Your task to perform on an android device: Search for jbl charge 4 on walmart, select the first entry, and add it to the cart. Image 0: 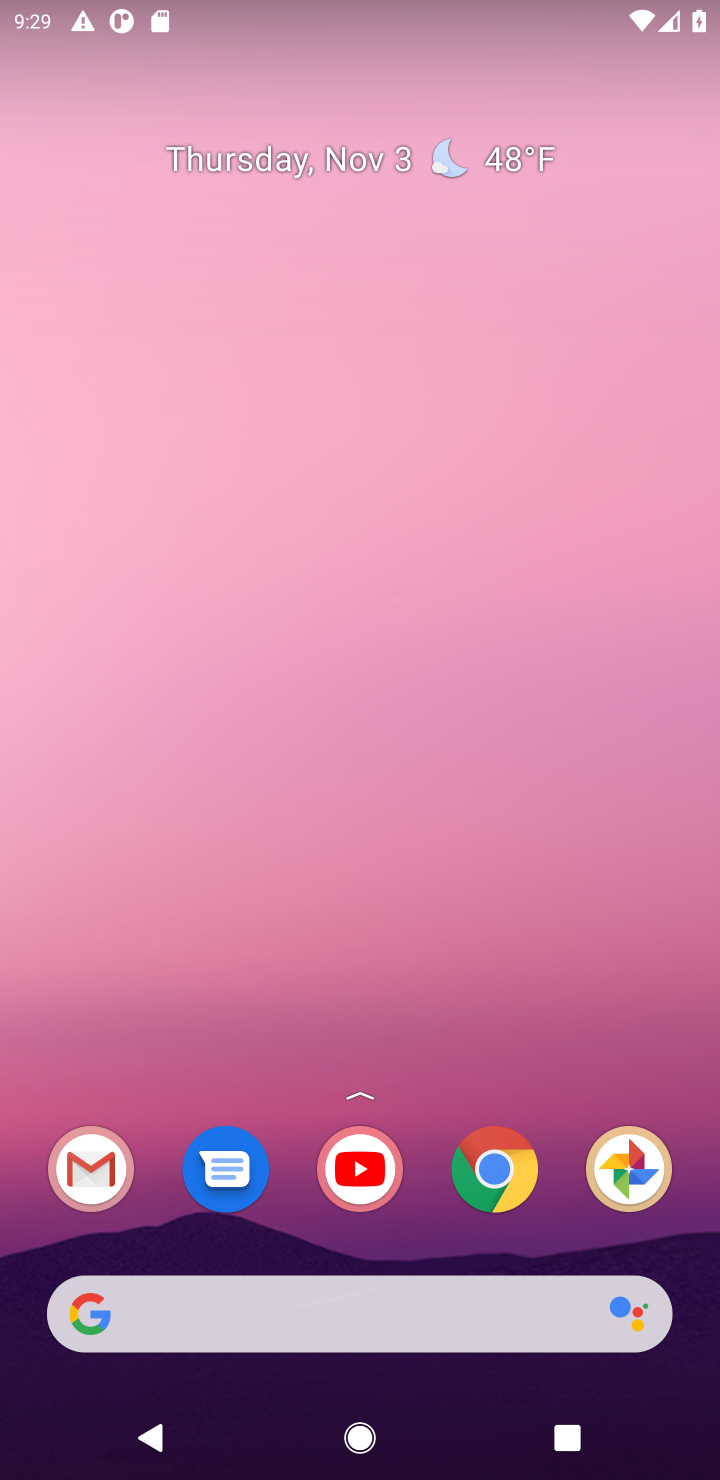
Step 0: drag from (425, 1221) to (370, 157)
Your task to perform on an android device: Search for jbl charge 4 on walmart, select the first entry, and add it to the cart. Image 1: 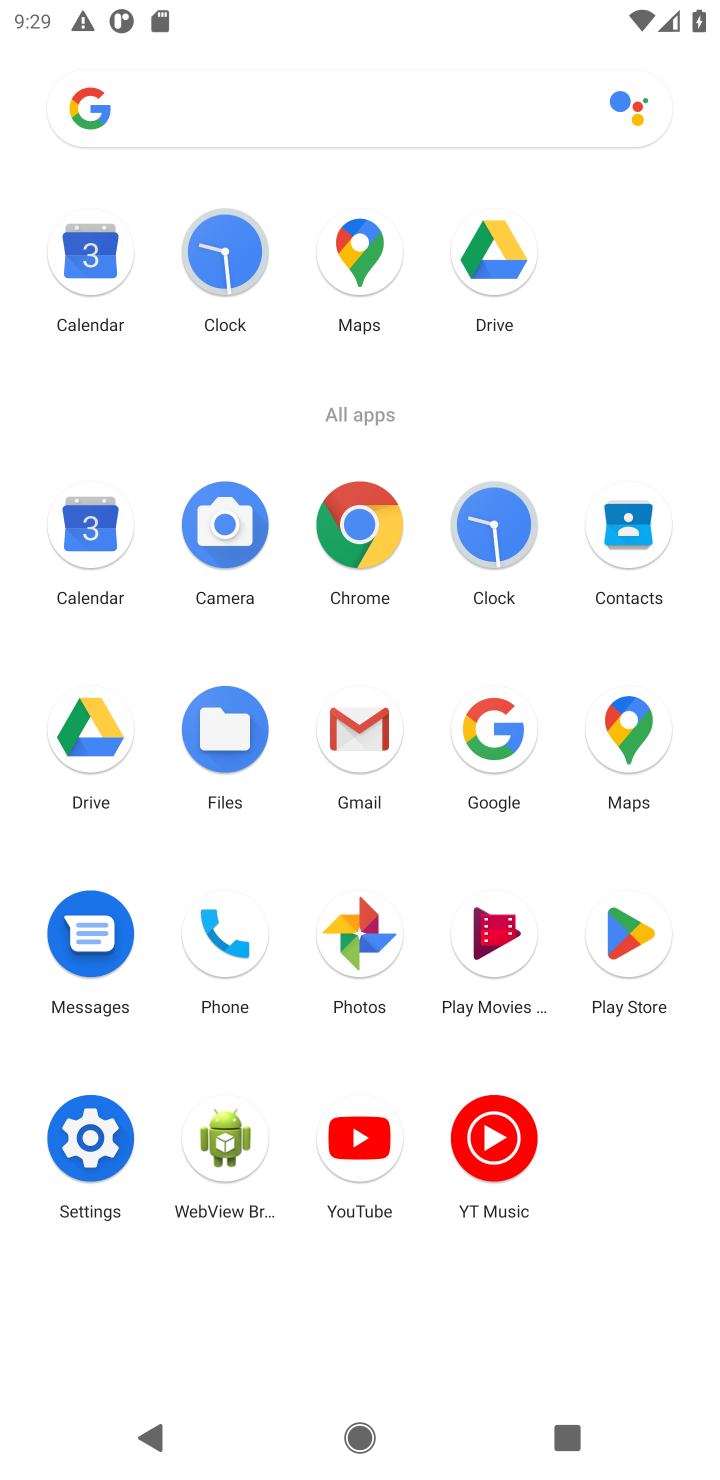
Step 1: click (362, 531)
Your task to perform on an android device: Search for jbl charge 4 on walmart, select the first entry, and add it to the cart. Image 2: 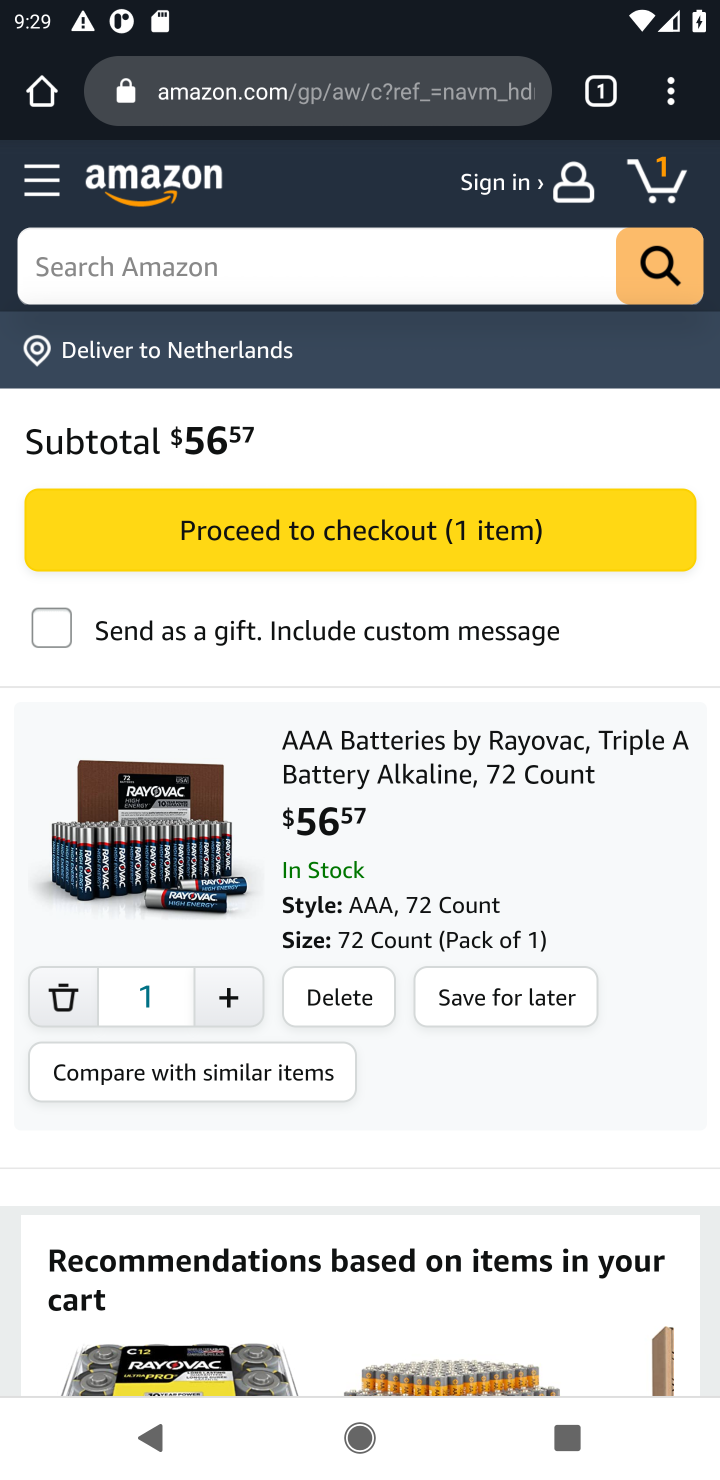
Step 2: click (429, 98)
Your task to perform on an android device: Search for jbl charge 4 on walmart, select the first entry, and add it to the cart. Image 3: 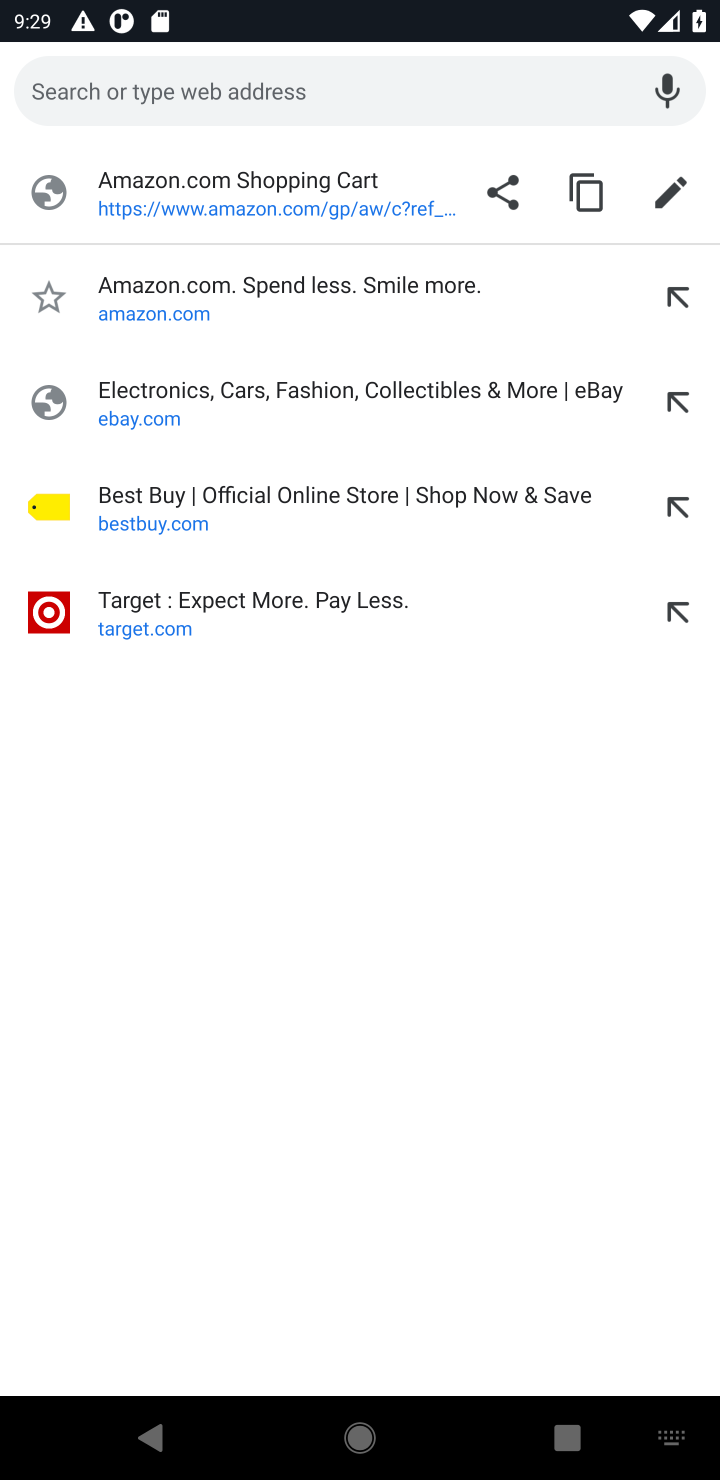
Step 3: type "walmart.com"
Your task to perform on an android device: Search for jbl charge 4 on walmart, select the first entry, and add it to the cart. Image 4: 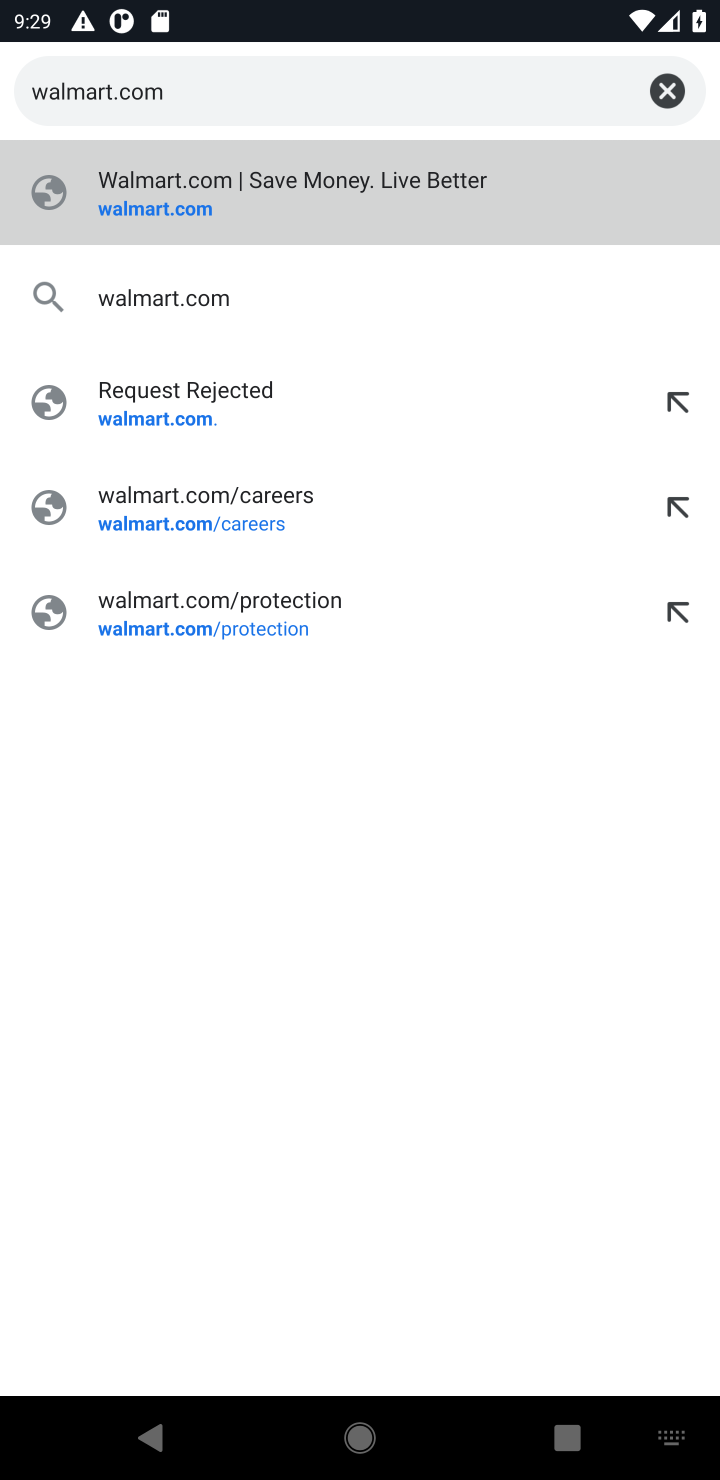
Step 4: press enter
Your task to perform on an android device: Search for jbl charge 4 on walmart, select the first entry, and add it to the cart. Image 5: 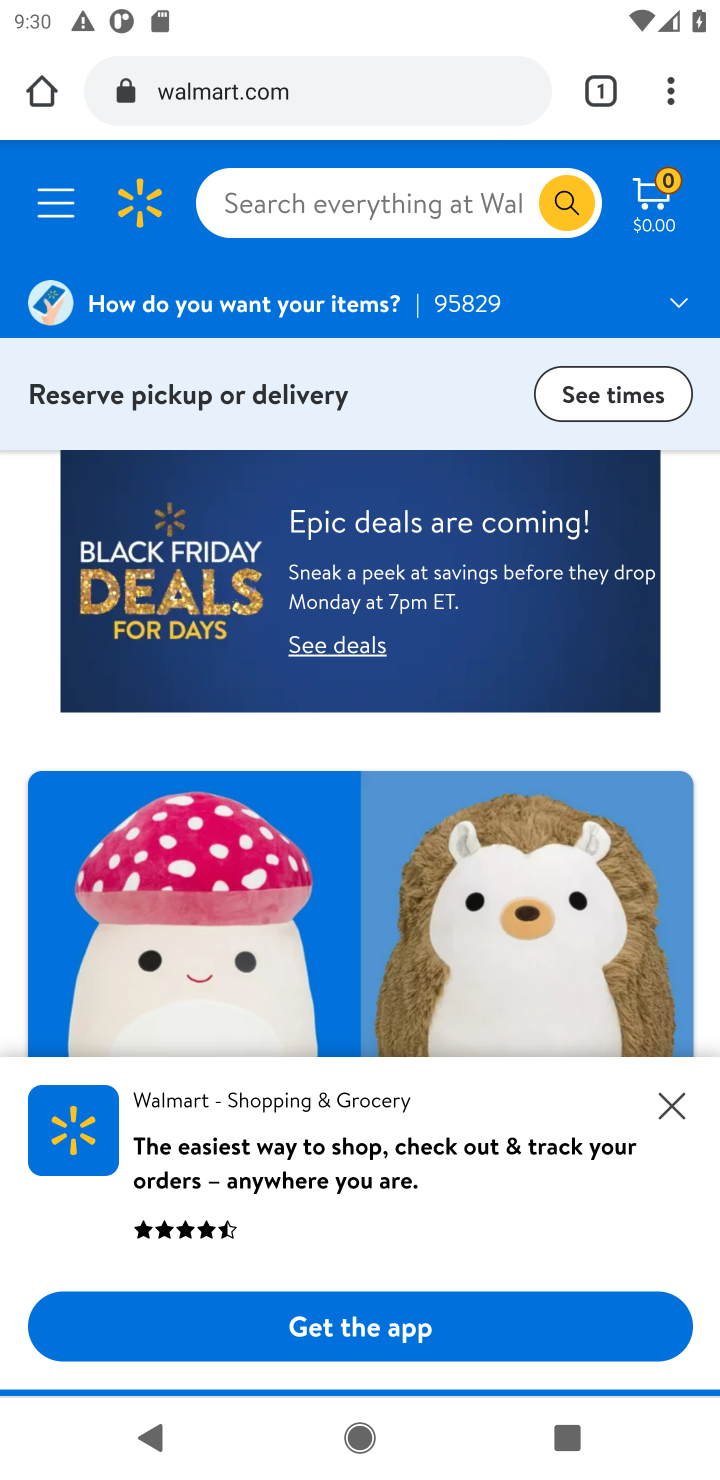
Step 5: click (445, 188)
Your task to perform on an android device: Search for jbl charge 4 on walmart, select the first entry, and add it to the cart. Image 6: 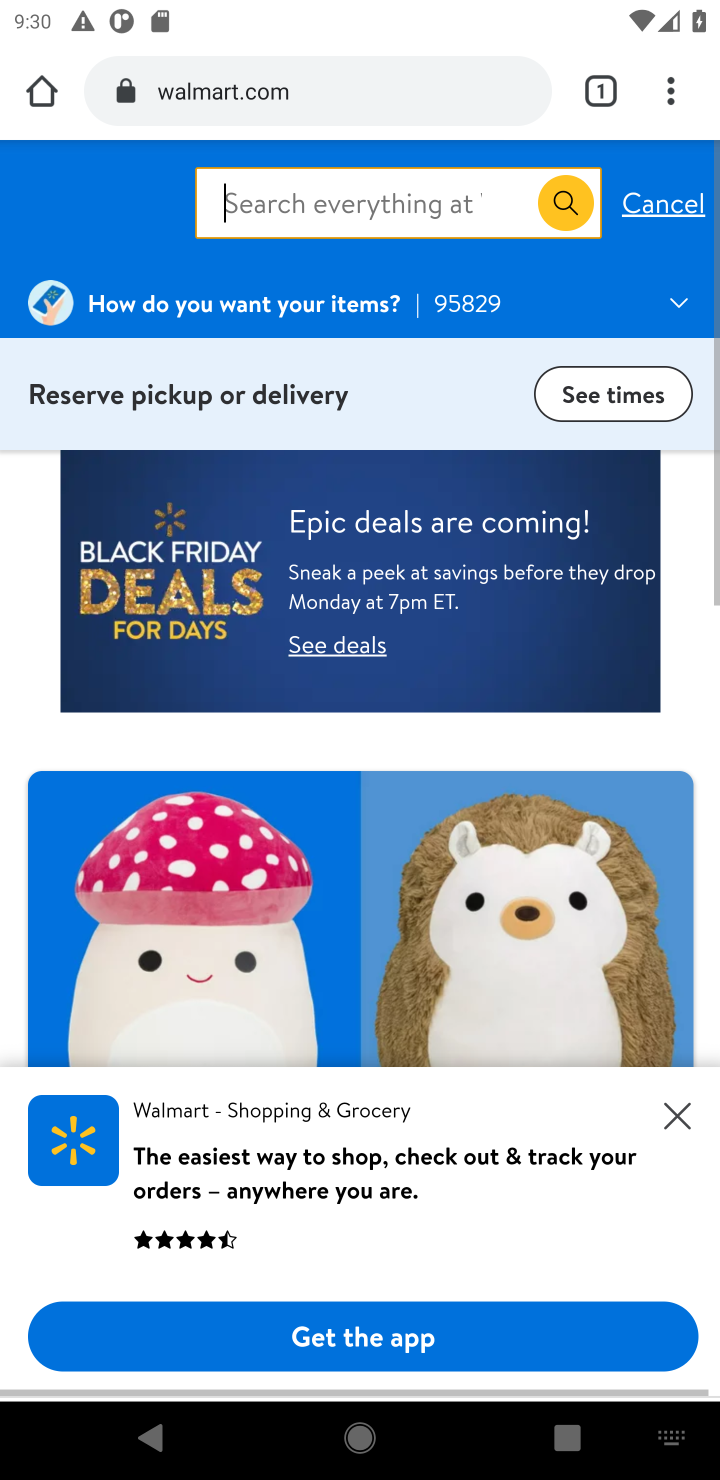
Step 6: type ""
Your task to perform on an android device: Search for jbl charge 4 on walmart, select the first entry, and add it to the cart. Image 7: 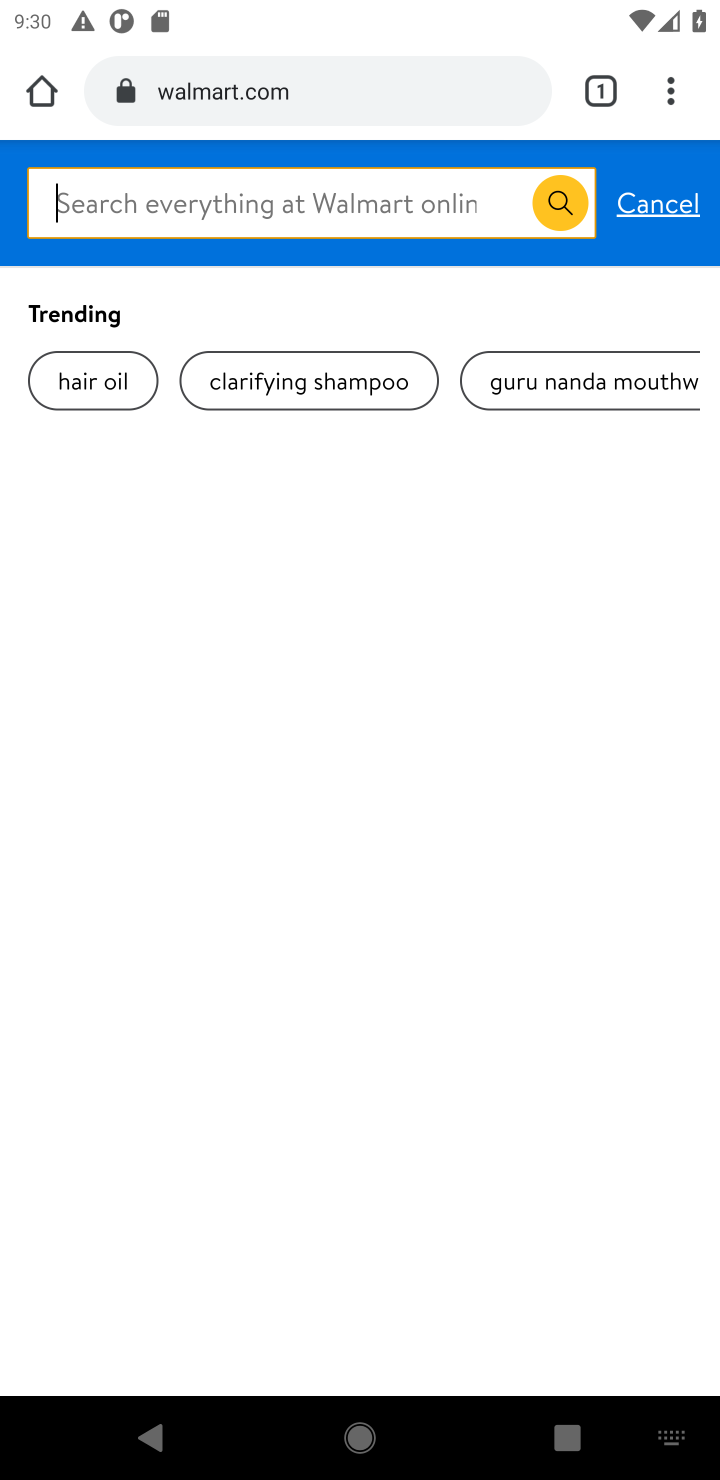
Step 7: type "jbl charge 4"
Your task to perform on an android device: Search for jbl charge 4 on walmart, select the first entry, and add it to the cart. Image 8: 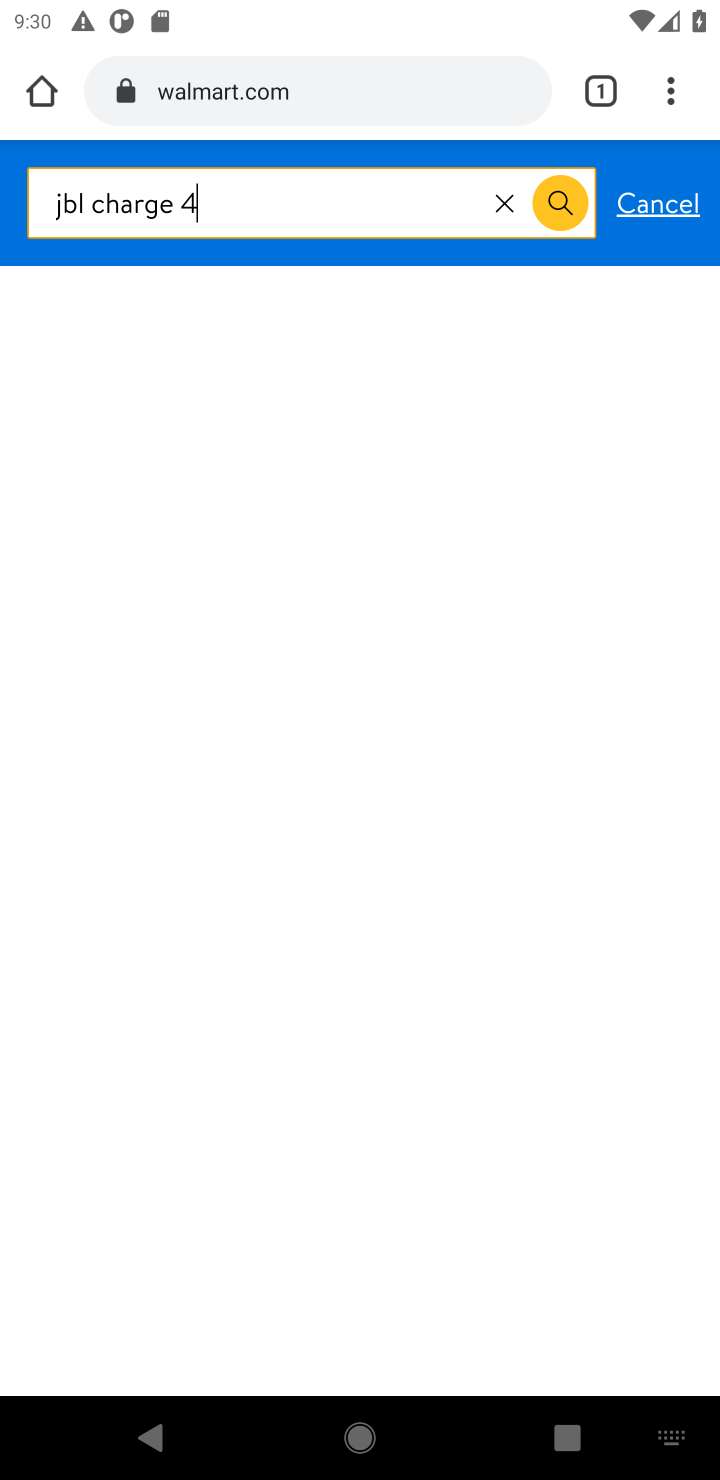
Step 8: press enter
Your task to perform on an android device: Search for jbl charge 4 on walmart, select the first entry, and add it to the cart. Image 9: 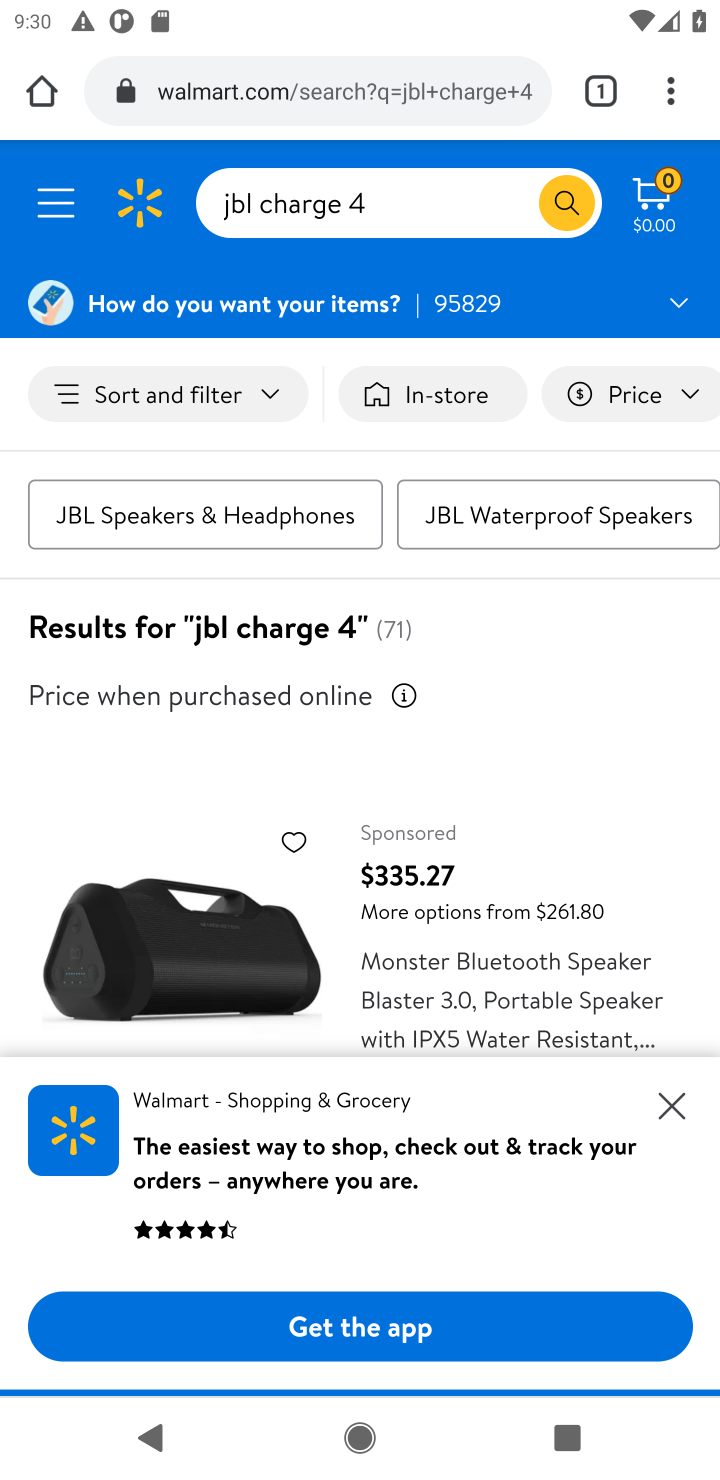
Step 9: drag from (432, 845) to (415, 380)
Your task to perform on an android device: Search for jbl charge 4 on walmart, select the first entry, and add it to the cart. Image 10: 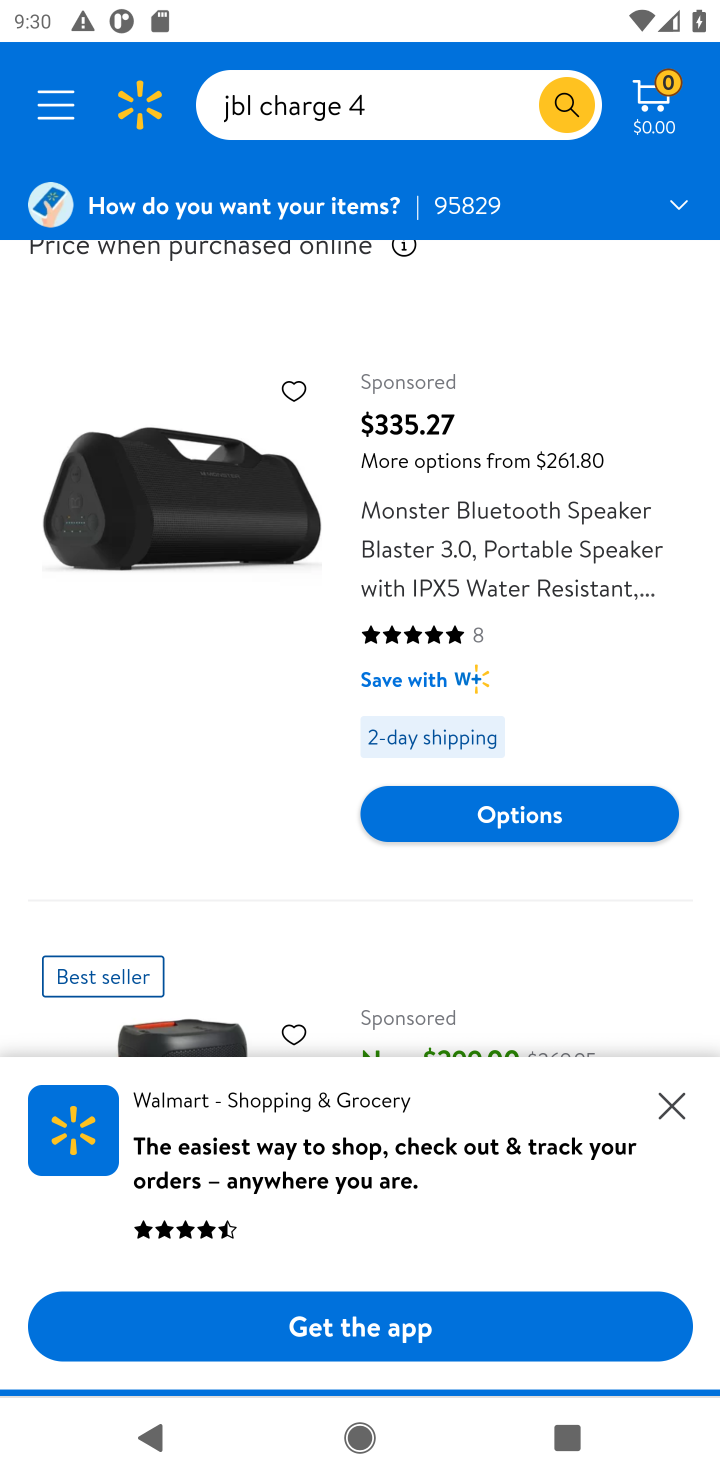
Step 10: drag from (381, 992) to (401, 323)
Your task to perform on an android device: Search for jbl charge 4 on walmart, select the first entry, and add it to the cart. Image 11: 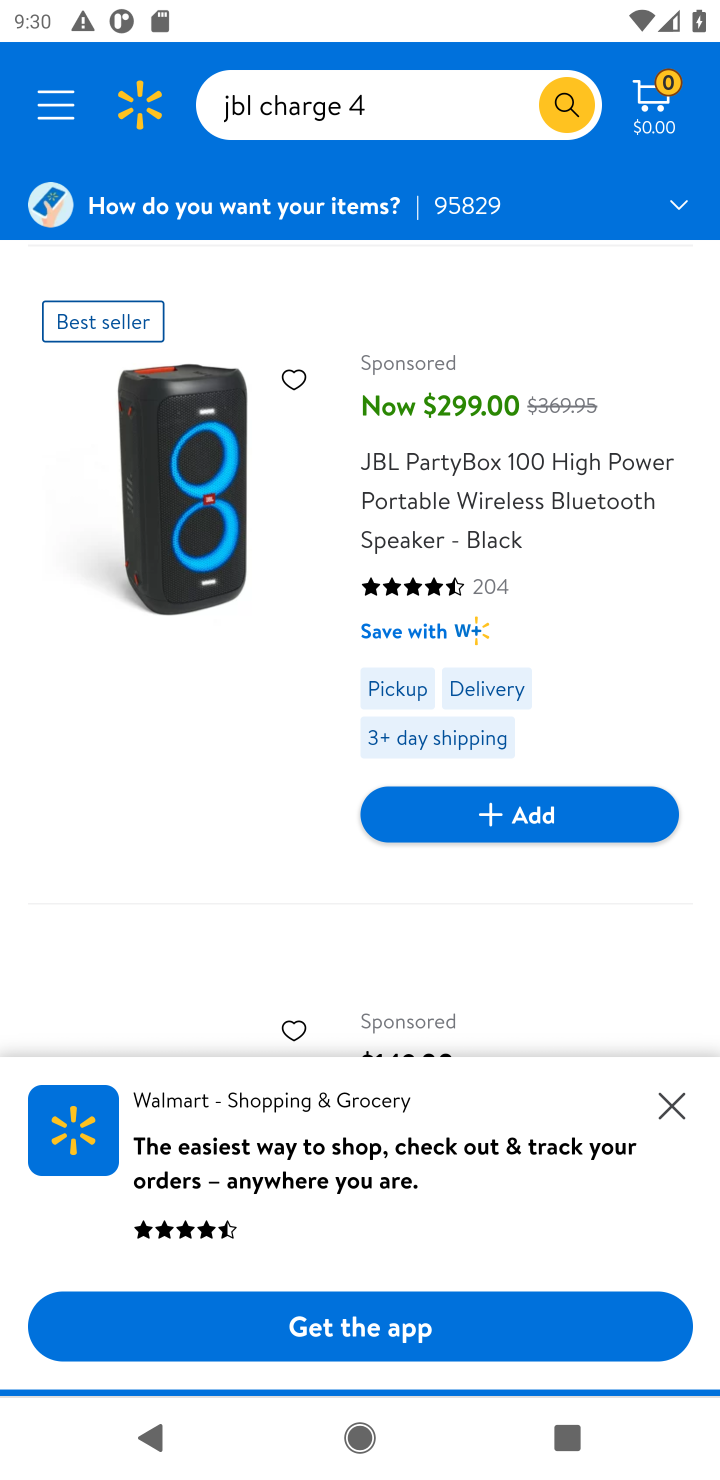
Step 11: drag from (280, 894) to (359, 341)
Your task to perform on an android device: Search for jbl charge 4 on walmart, select the first entry, and add it to the cart. Image 12: 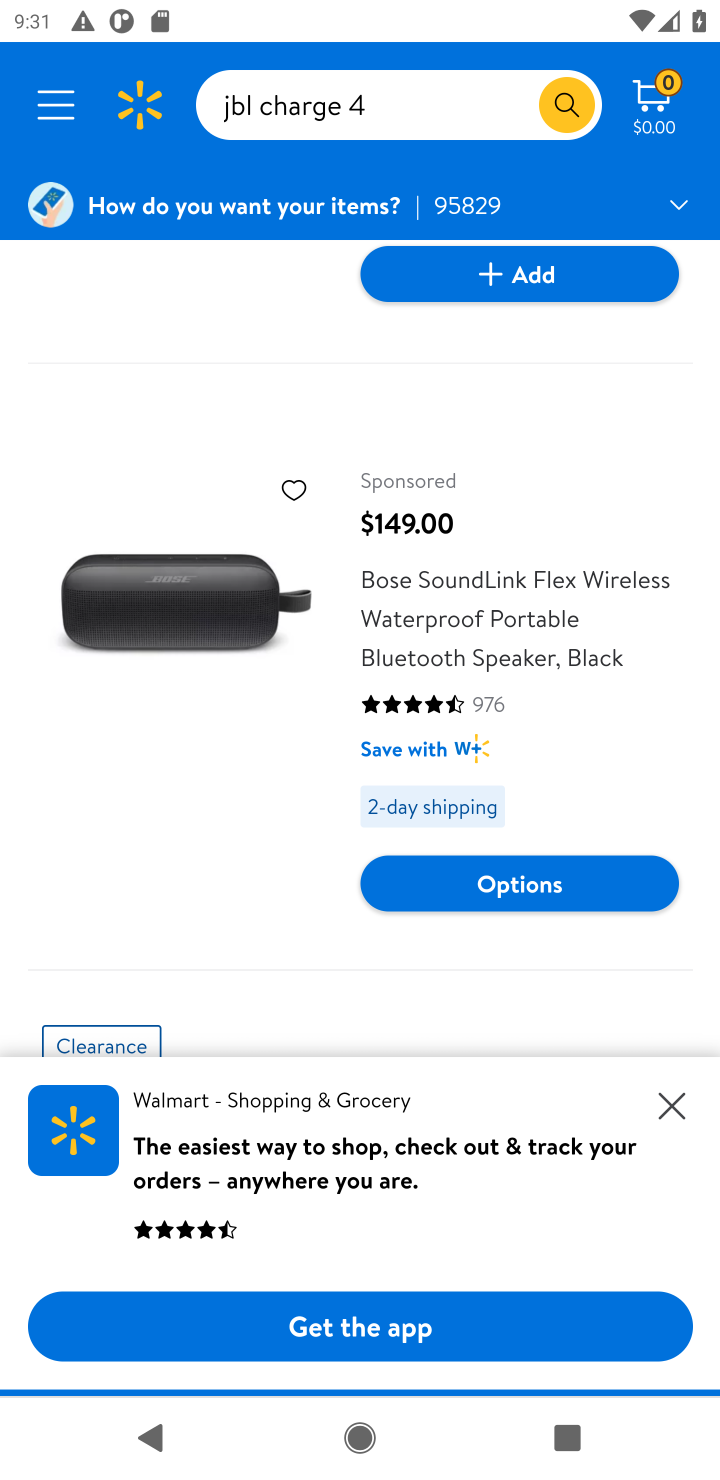
Step 12: drag from (235, 892) to (299, 341)
Your task to perform on an android device: Search for jbl charge 4 on walmart, select the first entry, and add it to the cart. Image 13: 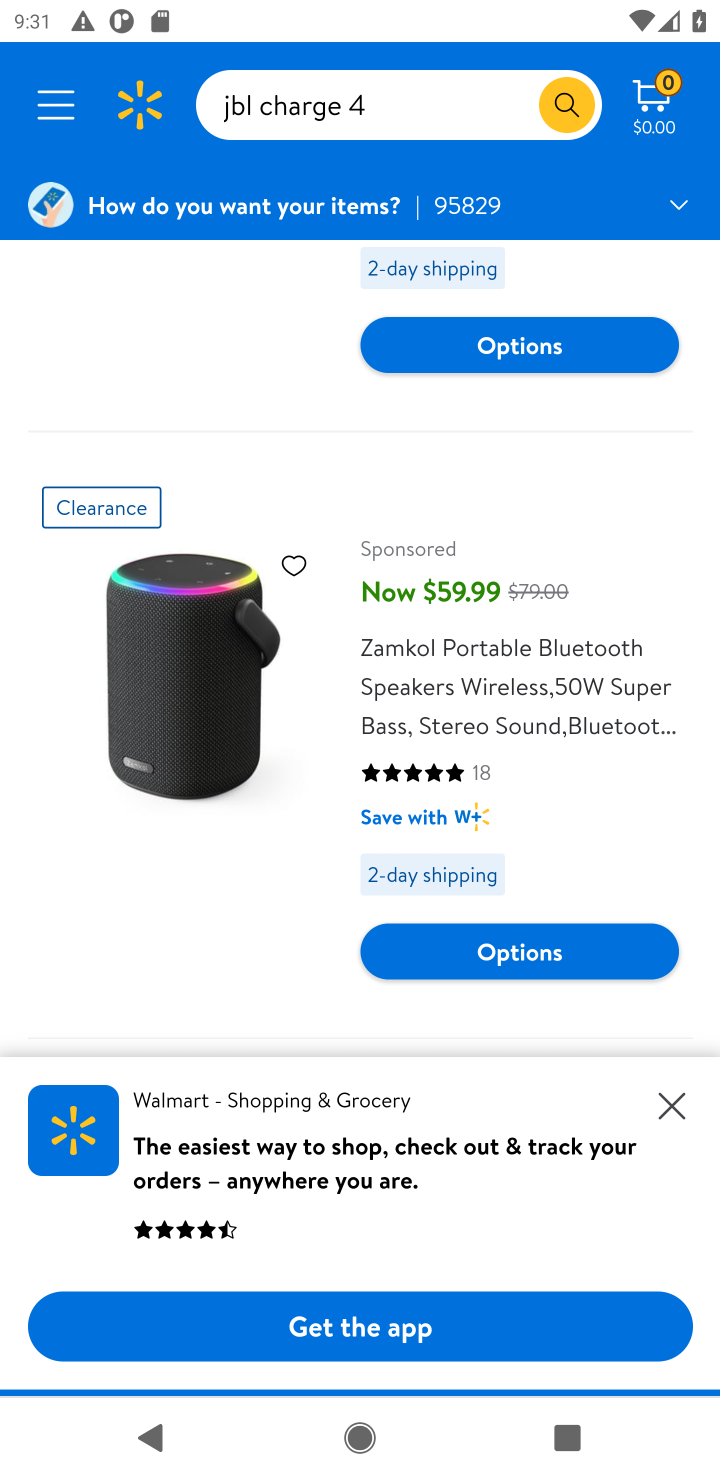
Step 13: drag from (373, 819) to (421, 489)
Your task to perform on an android device: Search for jbl charge 4 on walmart, select the first entry, and add it to the cart. Image 14: 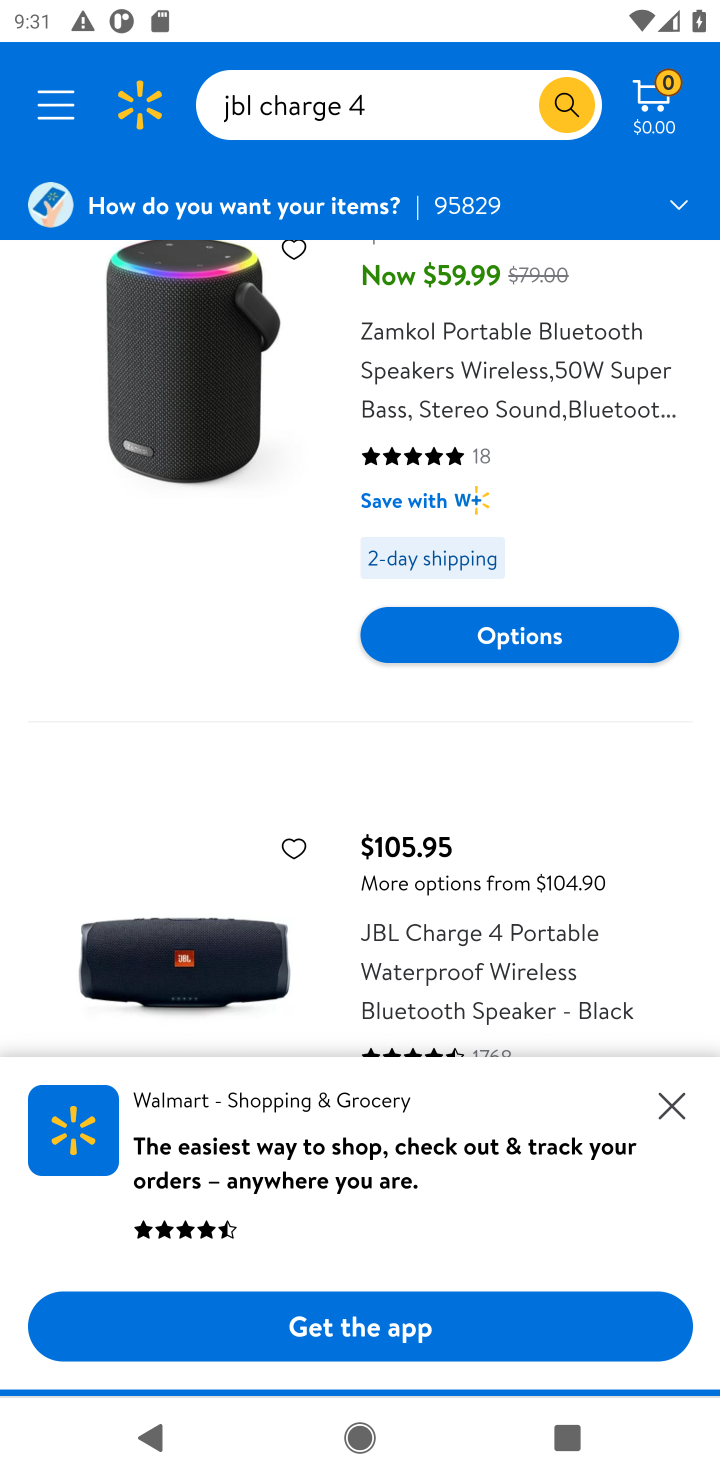
Step 14: drag from (397, 1079) to (464, 654)
Your task to perform on an android device: Search for jbl charge 4 on walmart, select the first entry, and add it to the cart. Image 15: 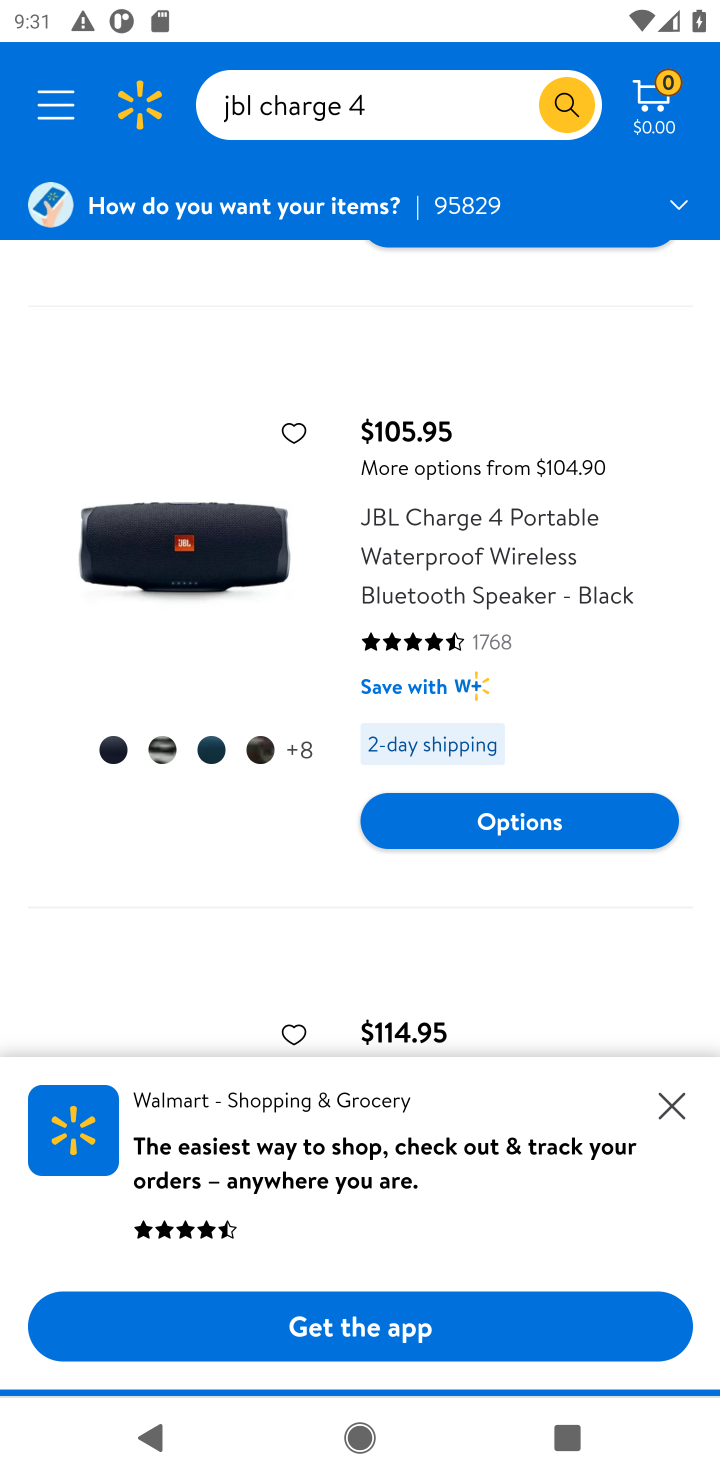
Step 15: drag from (507, 843) to (499, 356)
Your task to perform on an android device: Search for jbl charge 4 on walmart, select the first entry, and add it to the cart. Image 16: 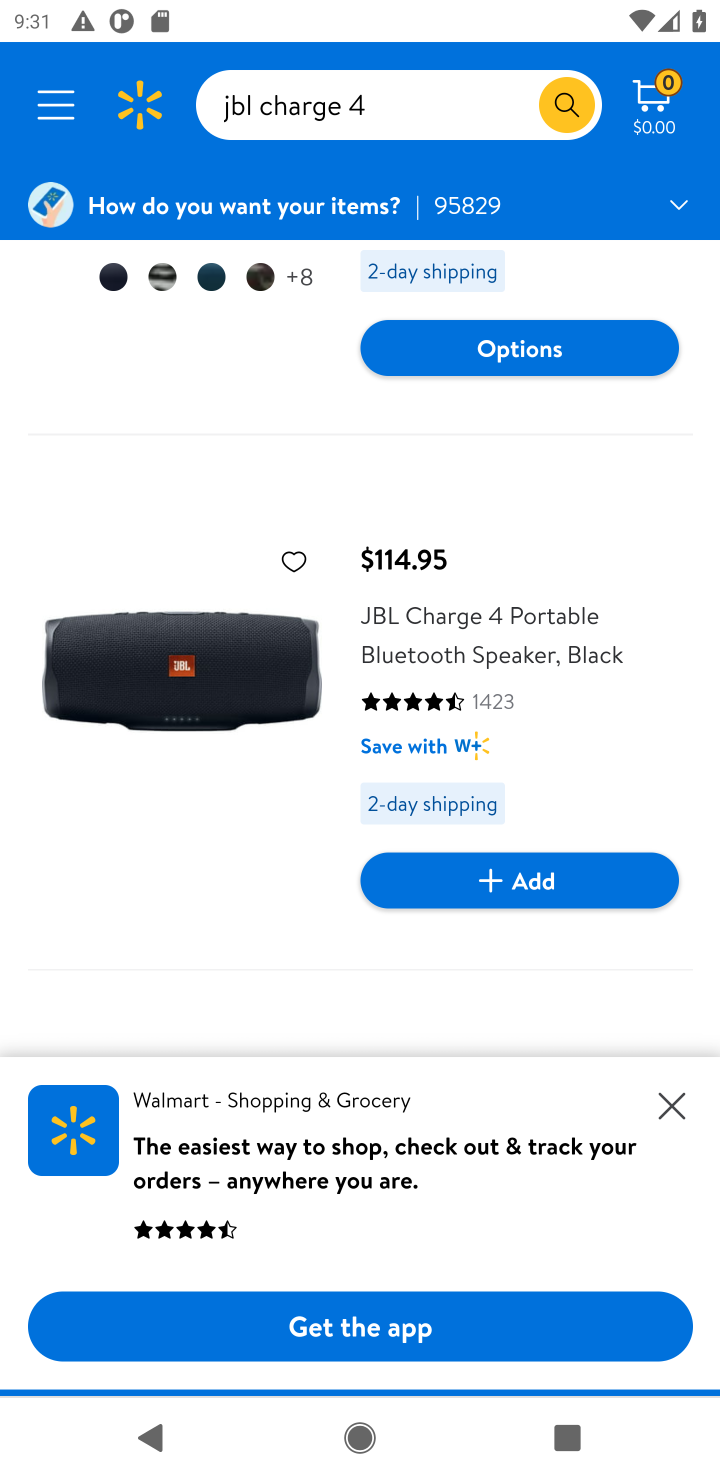
Step 16: drag from (444, 574) to (398, 1355)
Your task to perform on an android device: Search for jbl charge 4 on walmart, select the first entry, and add it to the cart. Image 17: 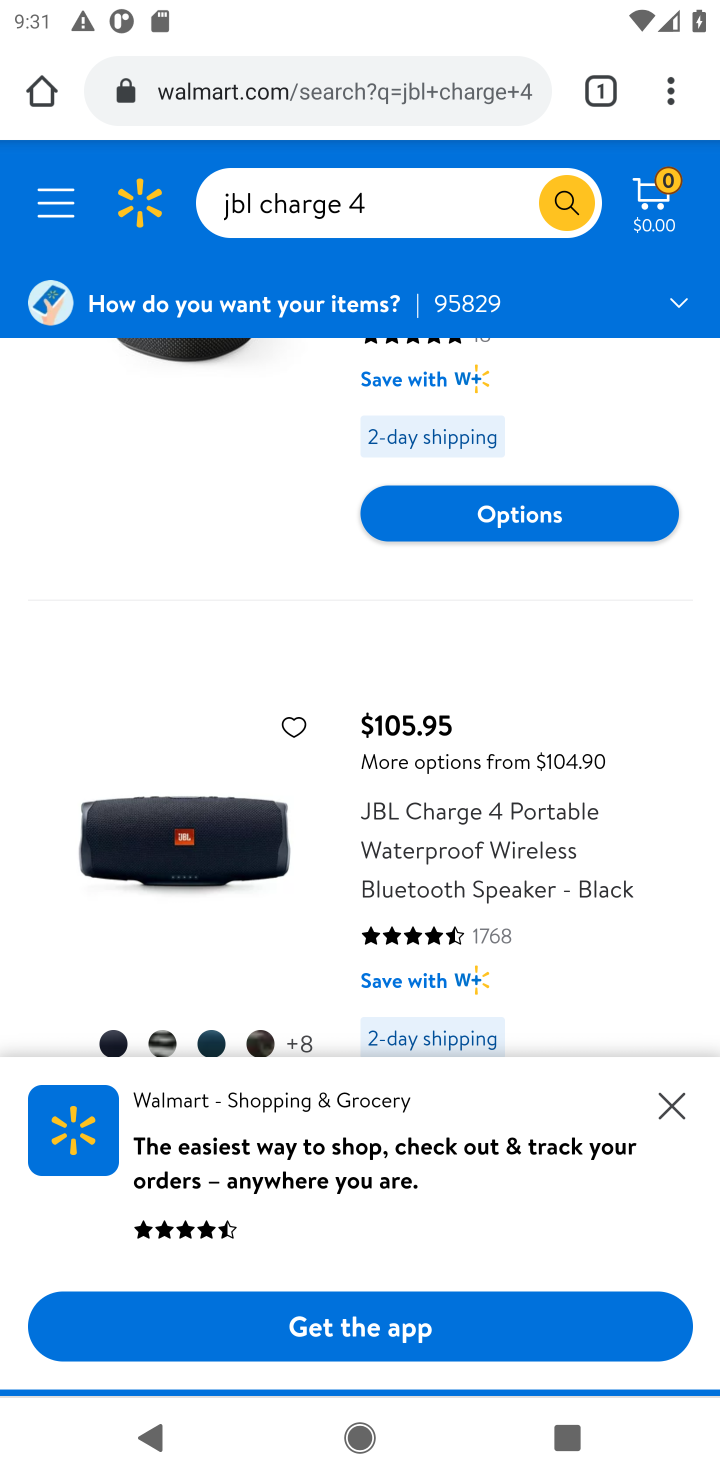
Step 17: drag from (334, 464) to (340, 1115)
Your task to perform on an android device: Search for jbl charge 4 on walmart, select the first entry, and add it to the cart. Image 18: 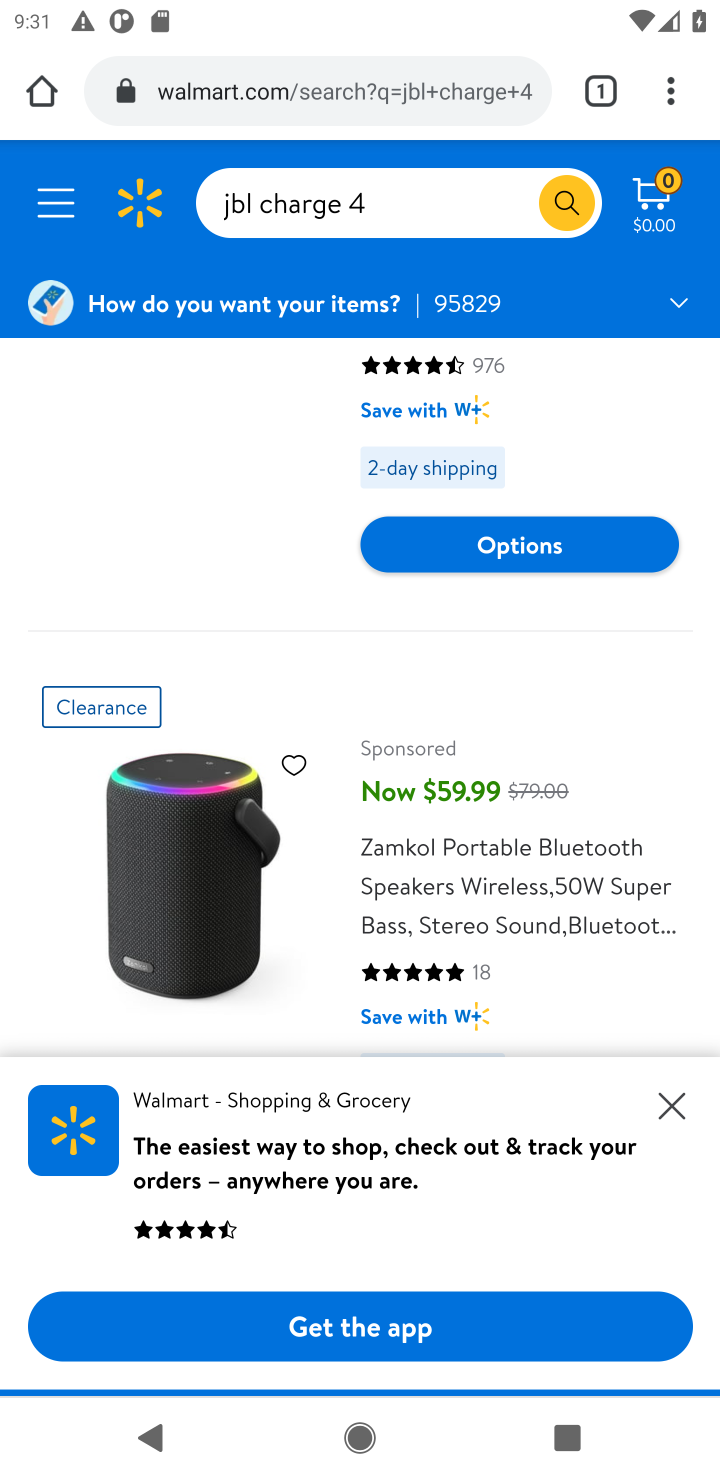
Step 18: drag from (411, 977) to (461, 271)
Your task to perform on an android device: Search for jbl charge 4 on walmart, select the first entry, and add it to the cart. Image 19: 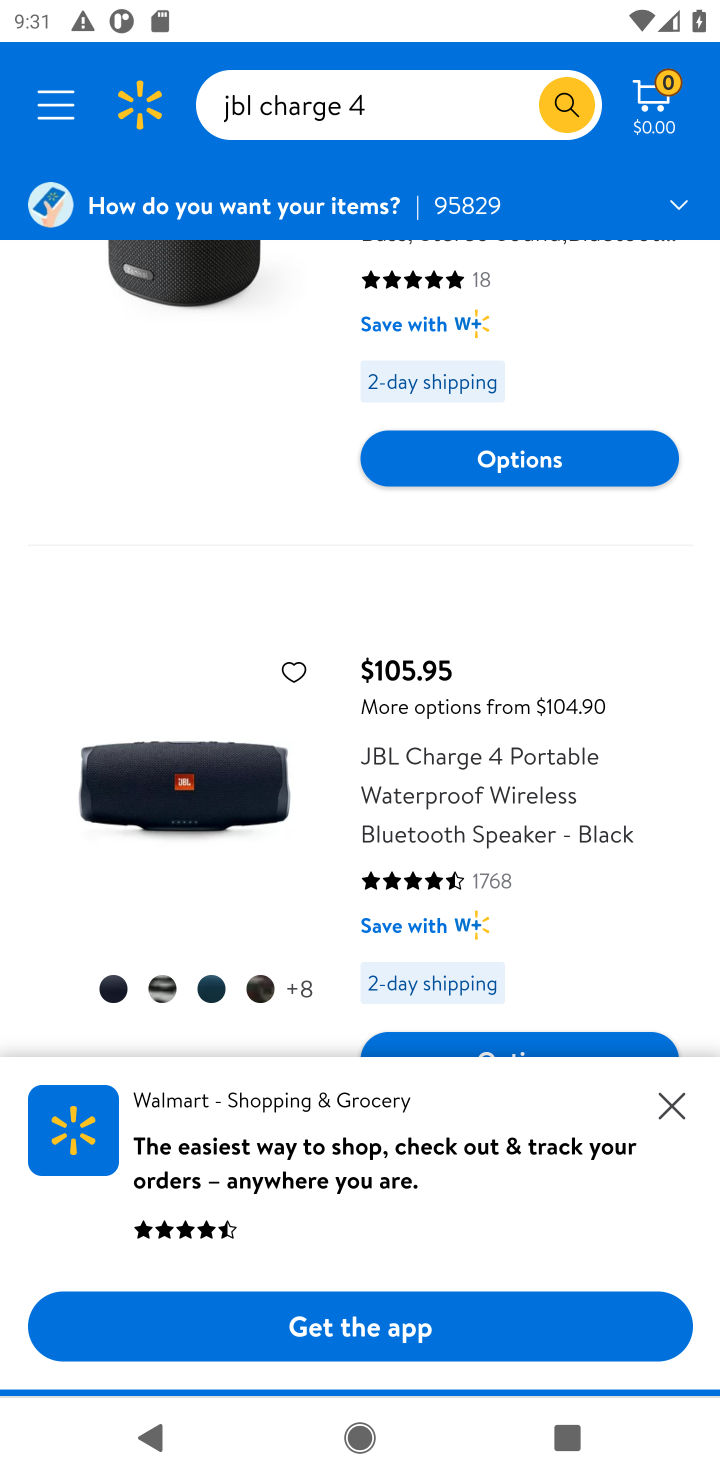
Step 19: drag from (427, 857) to (450, 668)
Your task to perform on an android device: Search for jbl charge 4 on walmart, select the first entry, and add it to the cart. Image 20: 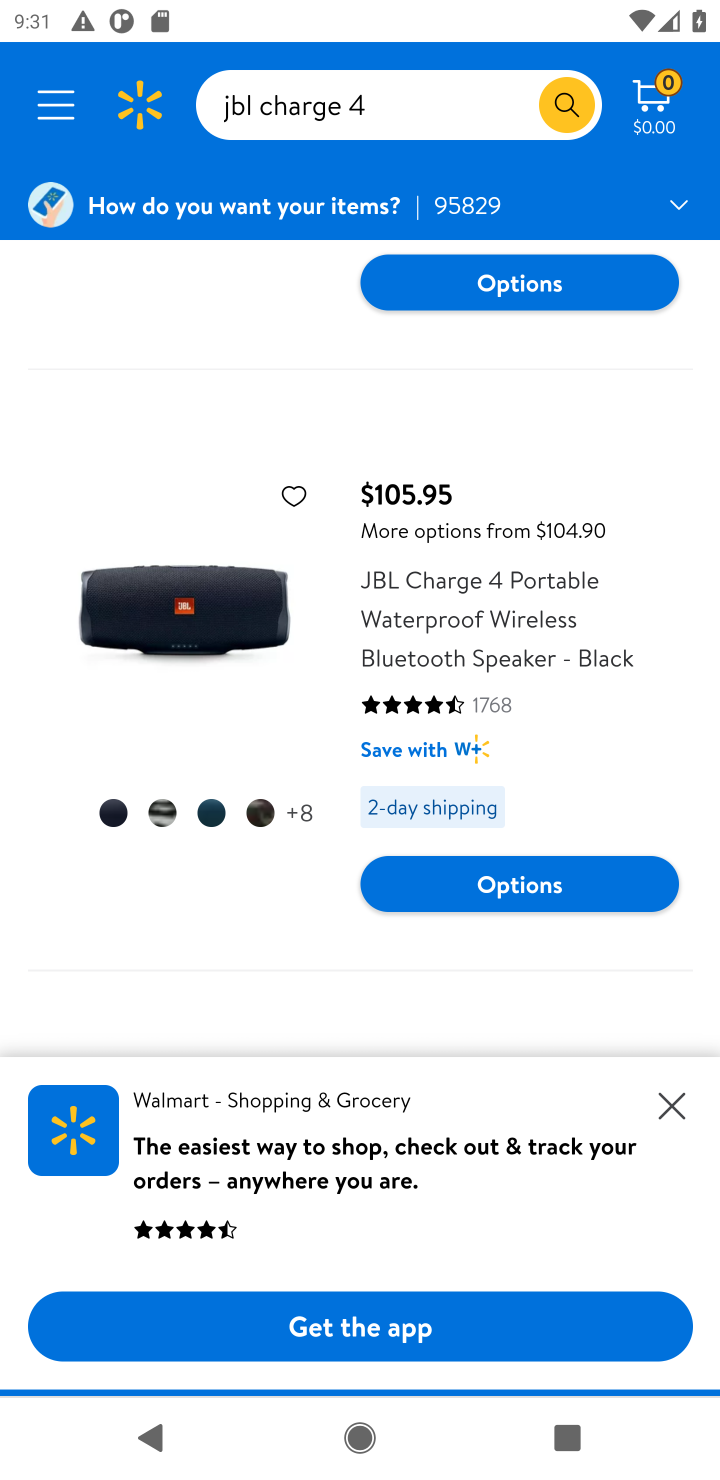
Step 20: click (518, 896)
Your task to perform on an android device: Search for jbl charge 4 on walmart, select the first entry, and add it to the cart. Image 21: 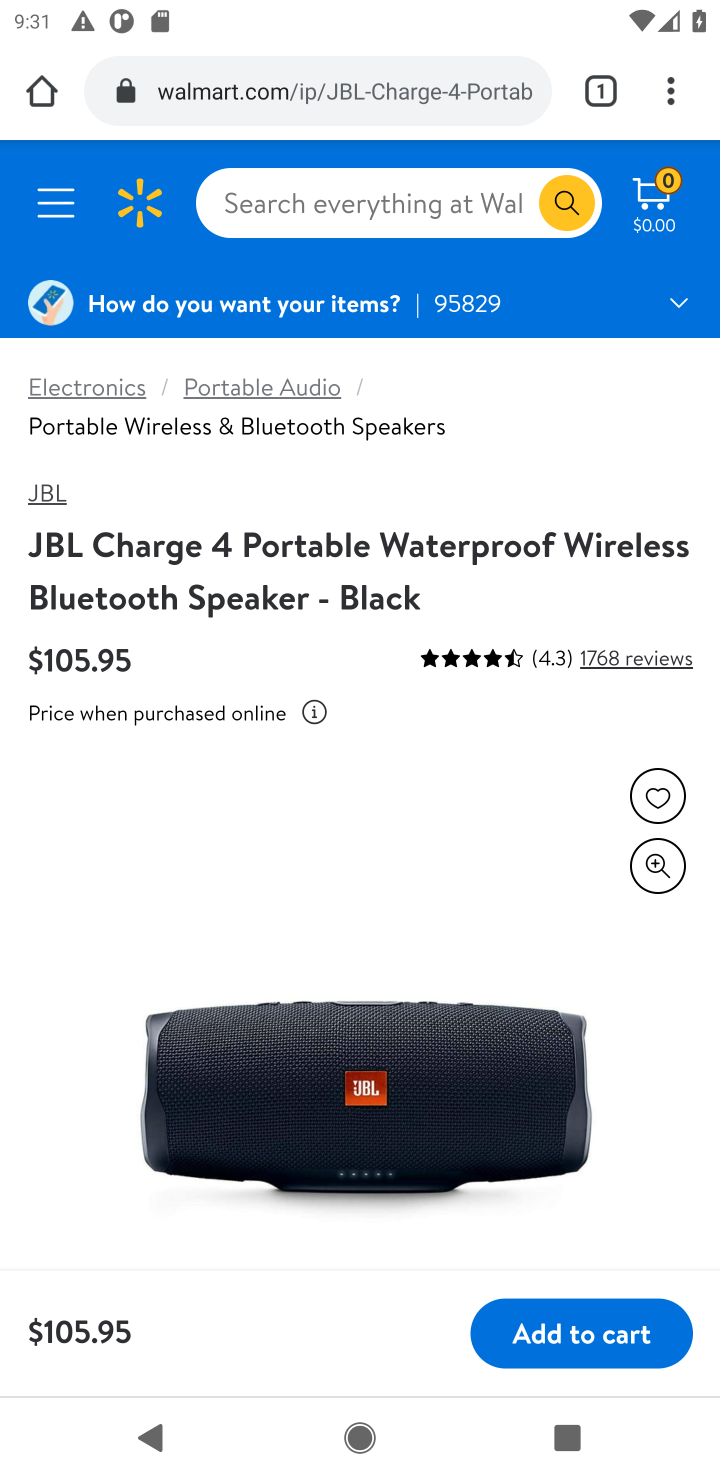
Step 21: drag from (496, 536) to (439, 88)
Your task to perform on an android device: Search for jbl charge 4 on walmart, select the first entry, and add it to the cart. Image 22: 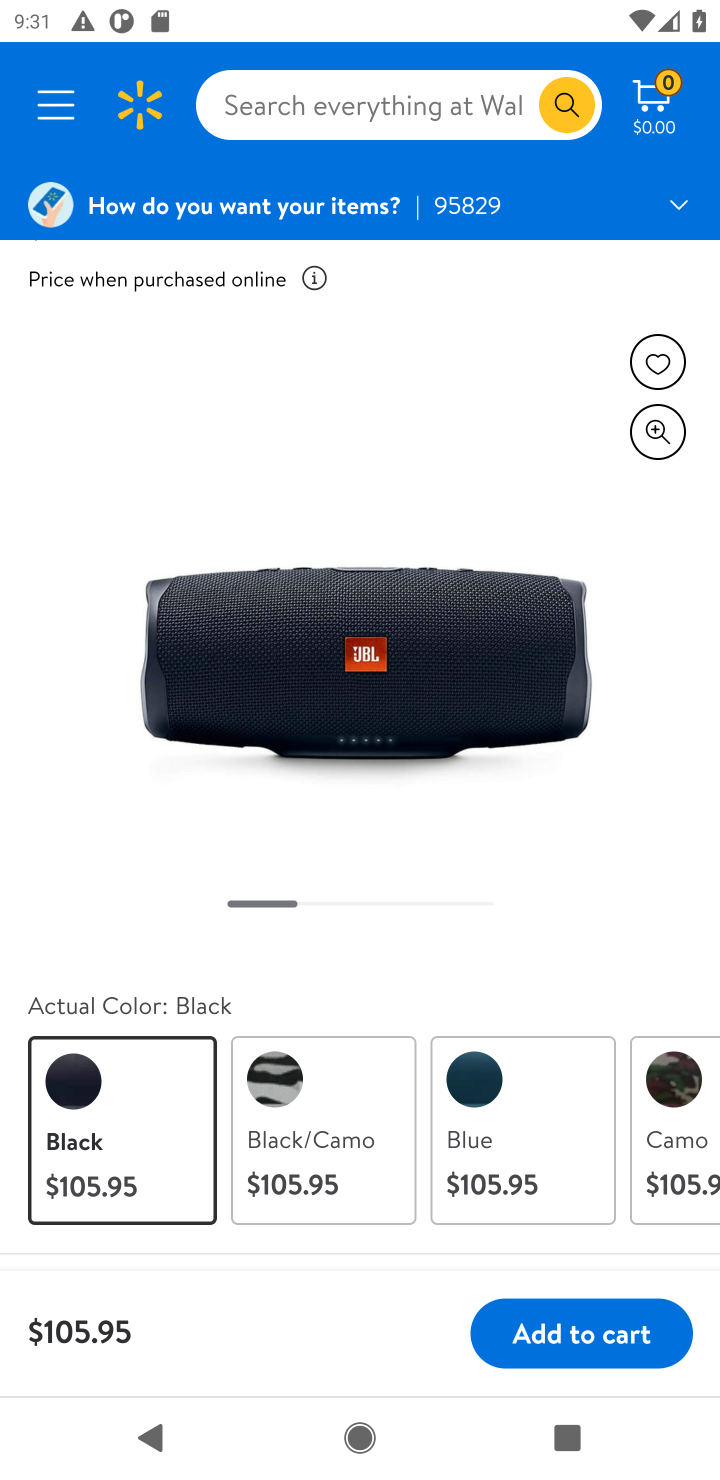
Step 22: drag from (405, 1019) to (451, 422)
Your task to perform on an android device: Search for jbl charge 4 on walmart, select the first entry, and add it to the cart. Image 23: 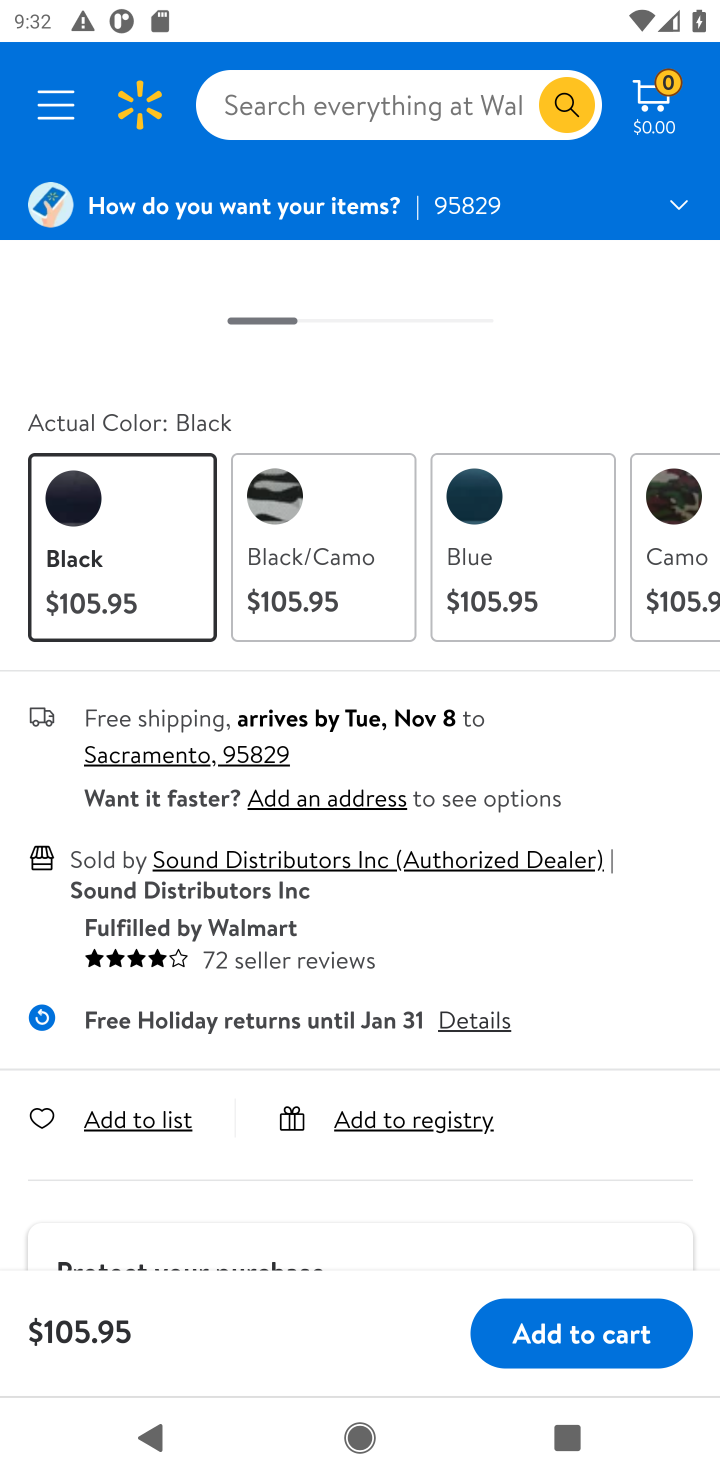
Step 23: drag from (363, 1104) to (402, 453)
Your task to perform on an android device: Search for jbl charge 4 on walmart, select the first entry, and add it to the cart. Image 24: 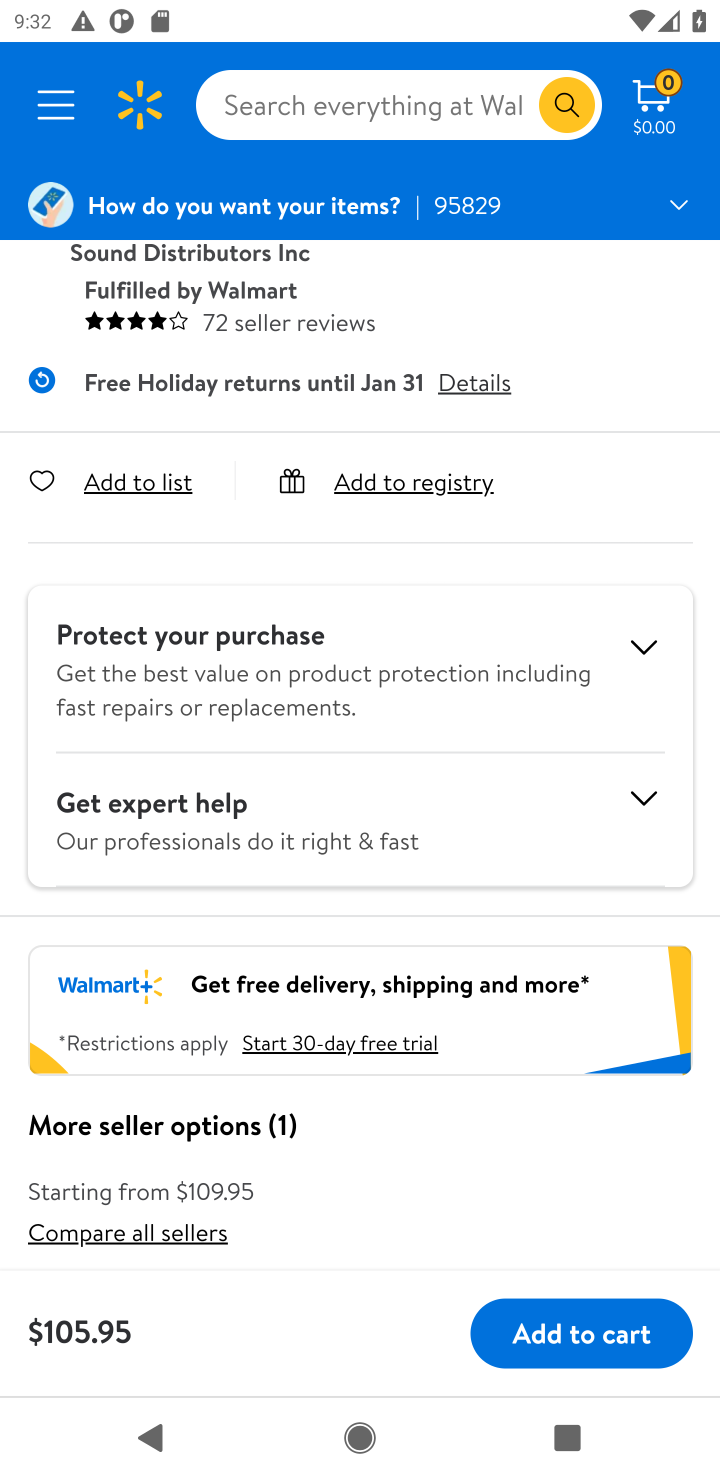
Step 24: drag from (431, 1173) to (508, 475)
Your task to perform on an android device: Search for jbl charge 4 on walmart, select the first entry, and add it to the cart. Image 25: 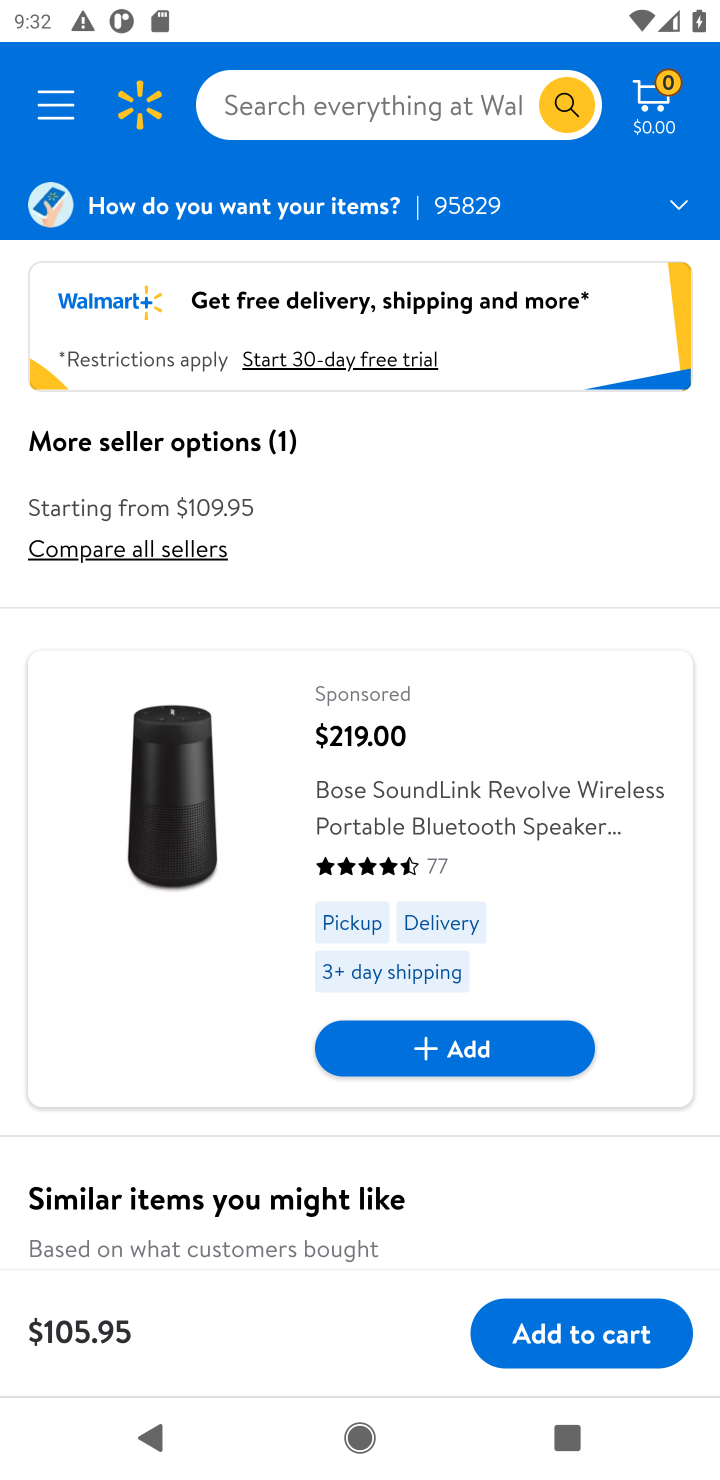
Step 25: drag from (420, 615) to (367, 1330)
Your task to perform on an android device: Search for jbl charge 4 on walmart, select the first entry, and add it to the cart. Image 26: 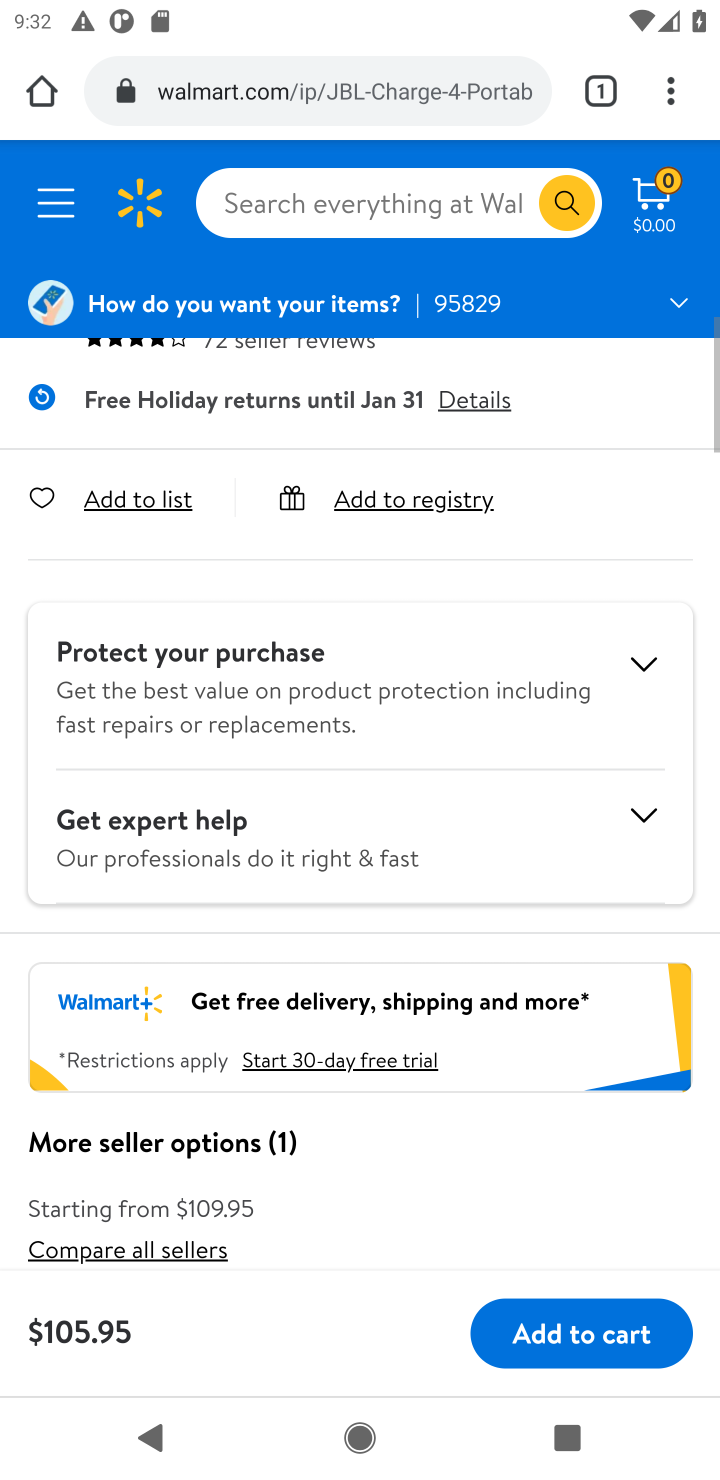
Step 26: drag from (388, 641) to (352, 1306)
Your task to perform on an android device: Search for jbl charge 4 on walmart, select the first entry, and add it to the cart. Image 27: 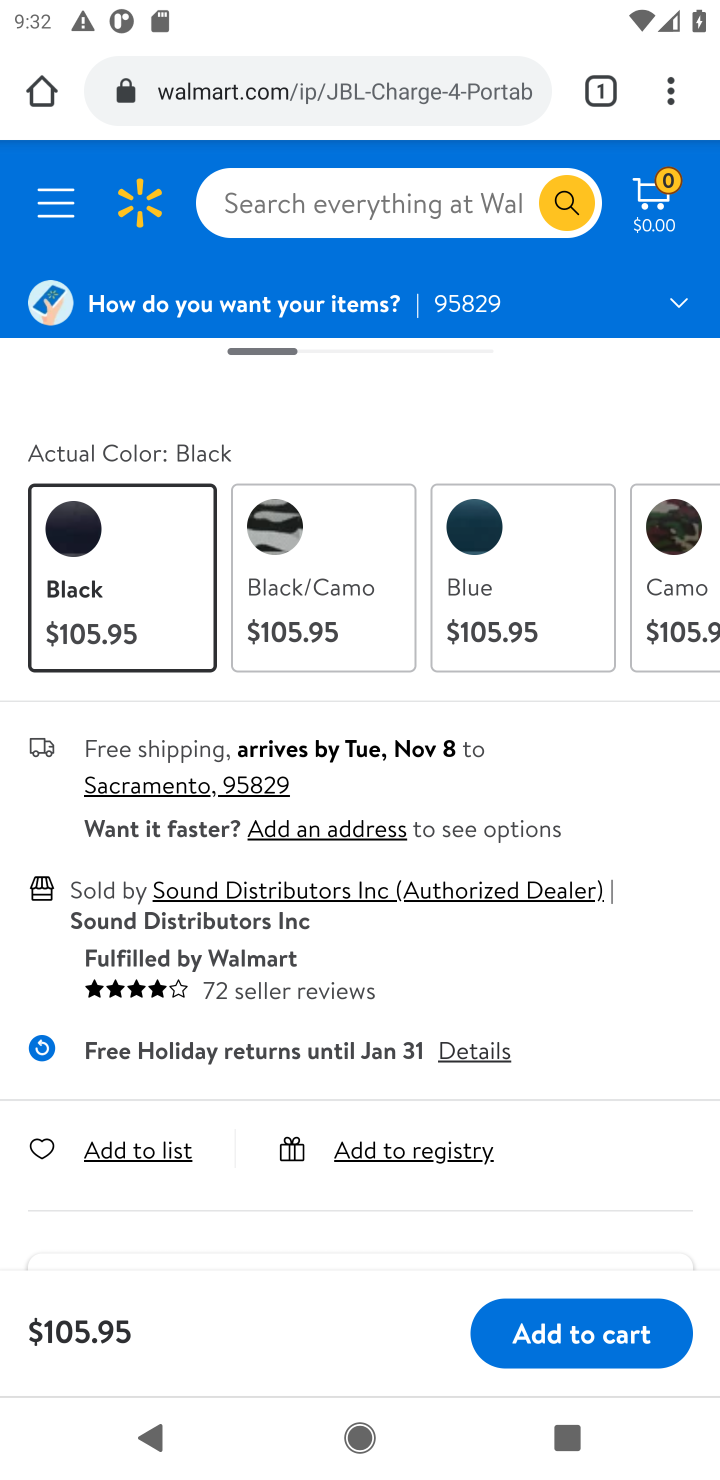
Step 27: drag from (444, 607) to (397, 1199)
Your task to perform on an android device: Search for jbl charge 4 on walmart, select the first entry, and add it to the cart. Image 28: 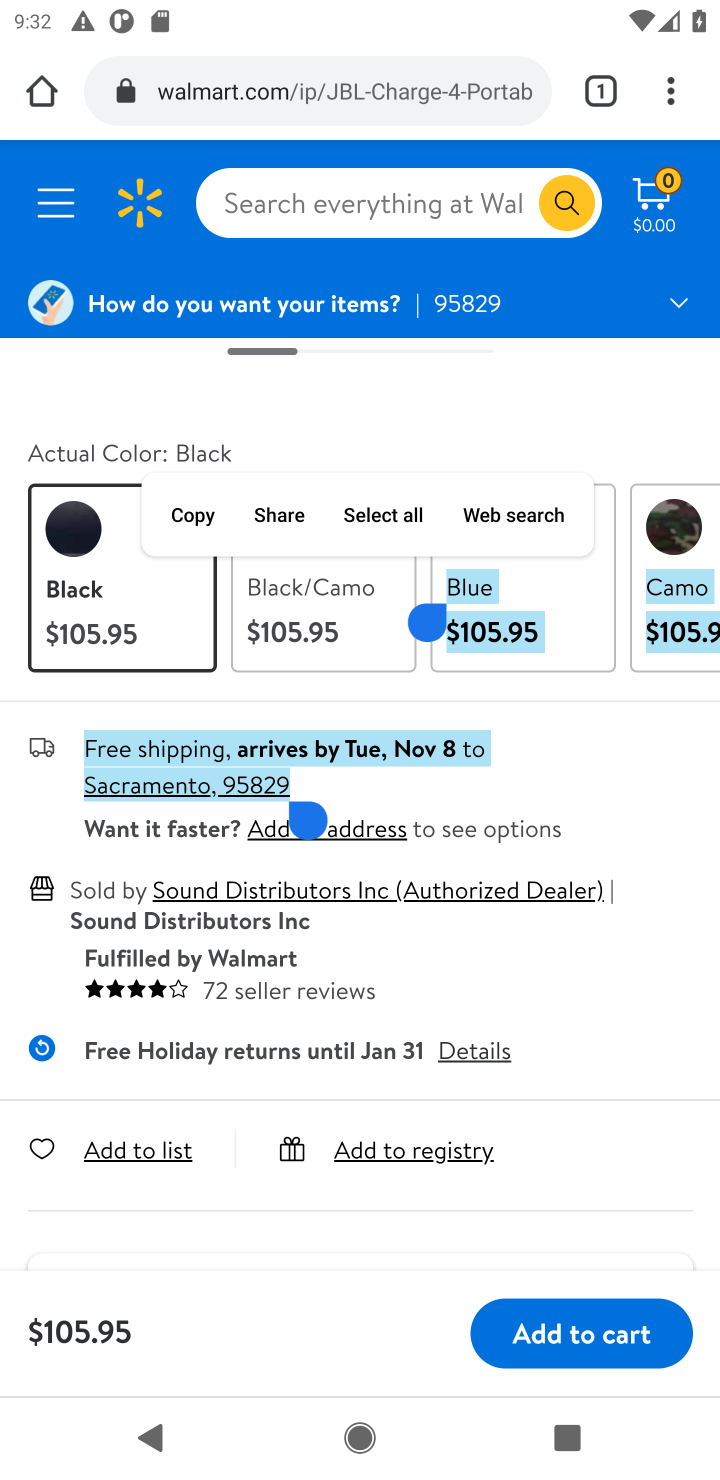
Step 28: drag from (615, 745) to (551, 1344)
Your task to perform on an android device: Search for jbl charge 4 on walmart, select the first entry, and add it to the cart. Image 29: 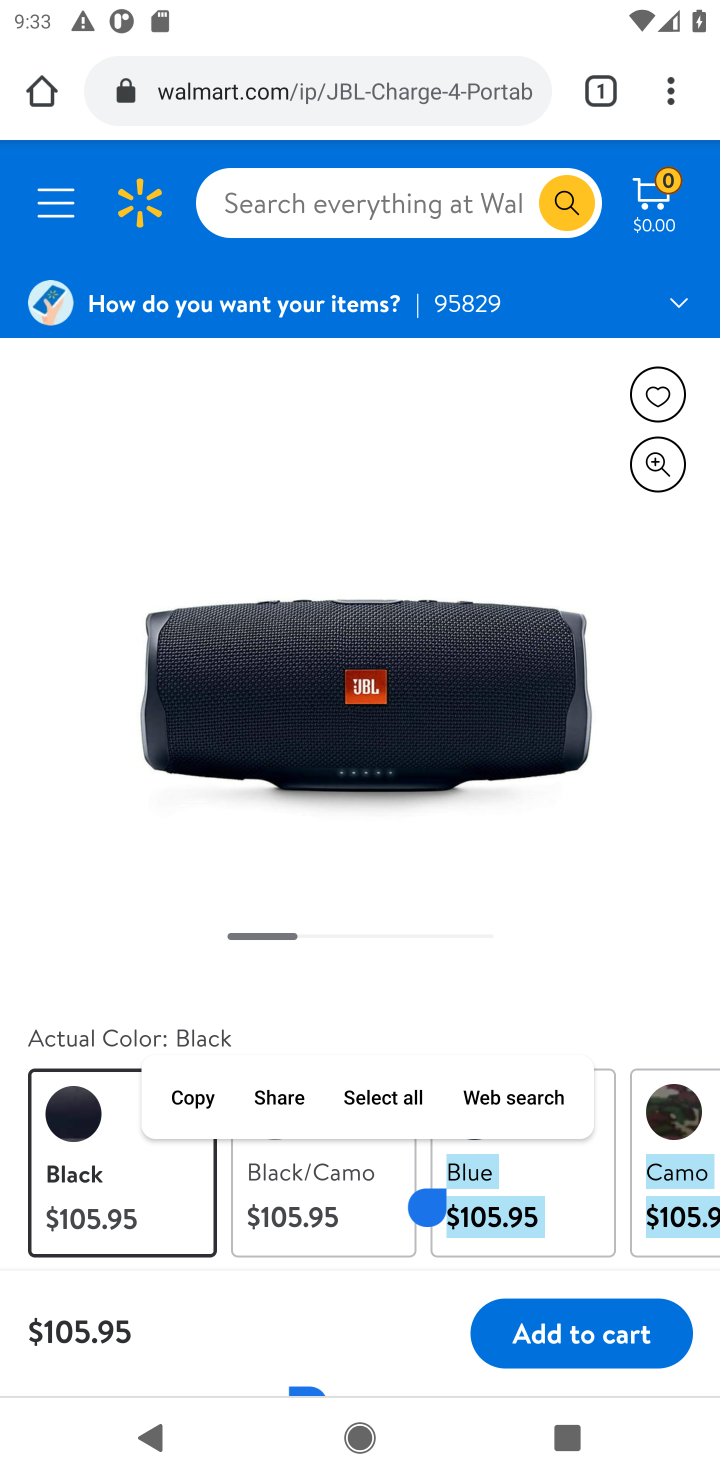
Step 29: drag from (456, 551) to (482, 1201)
Your task to perform on an android device: Search for jbl charge 4 on walmart, select the first entry, and add it to the cart. Image 30: 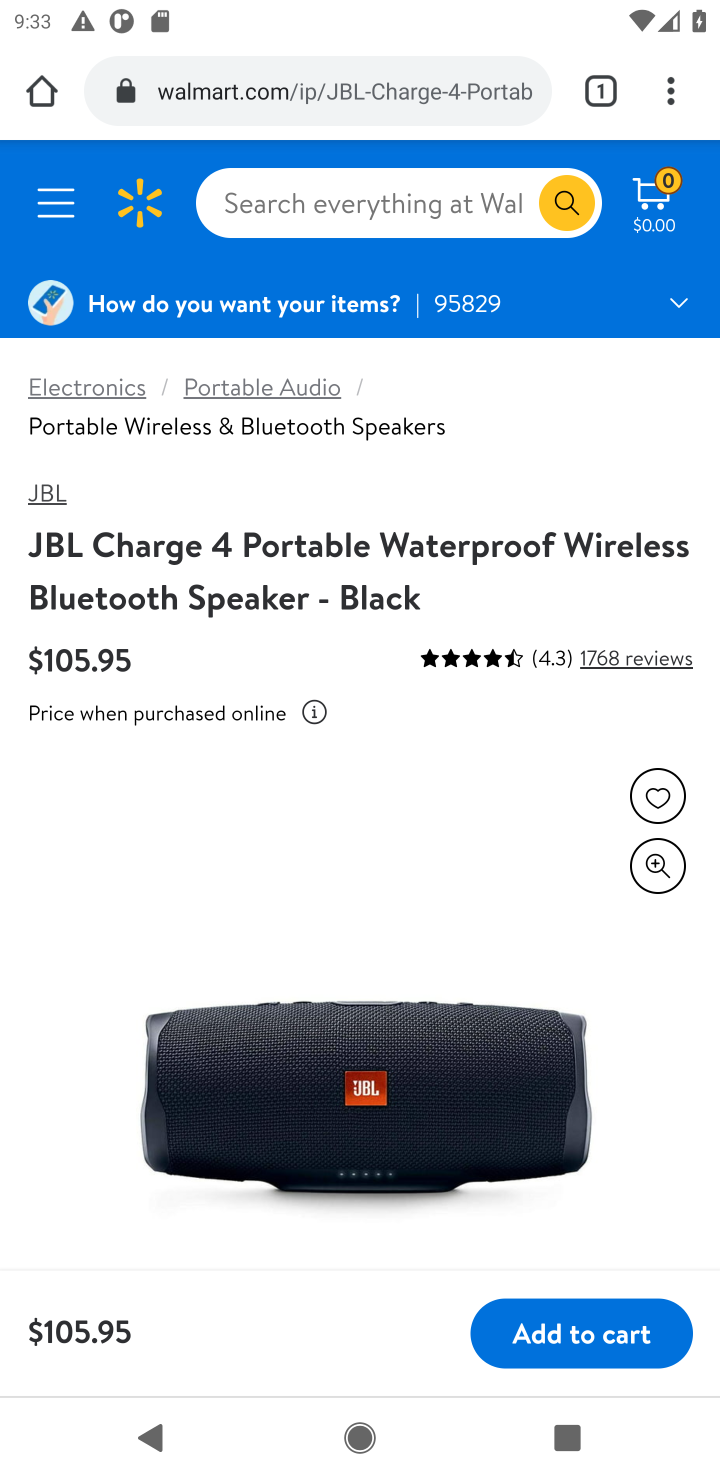
Step 30: click (588, 1321)
Your task to perform on an android device: Search for jbl charge 4 on walmart, select the first entry, and add it to the cart. Image 31: 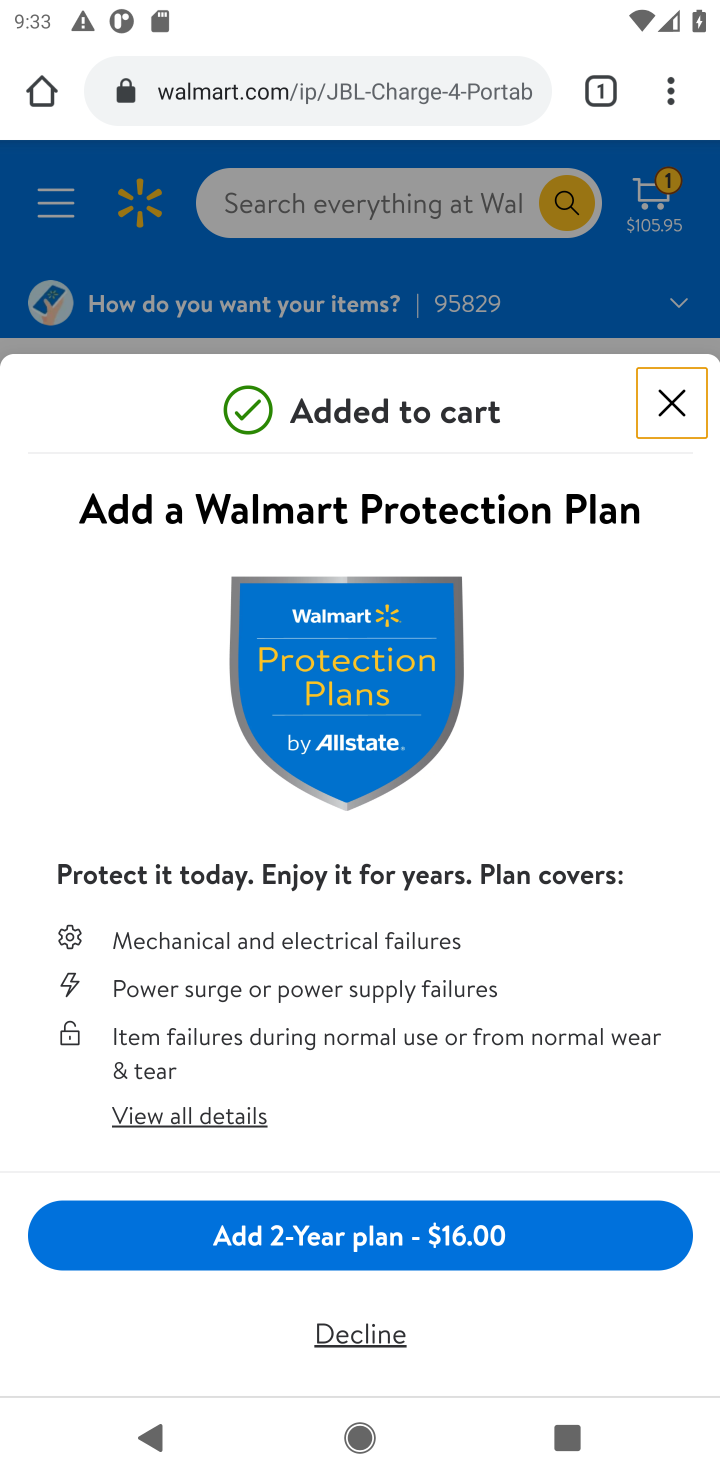
Step 31: task complete